Your task to perform on an android device: Go to ESPN.com Image 0: 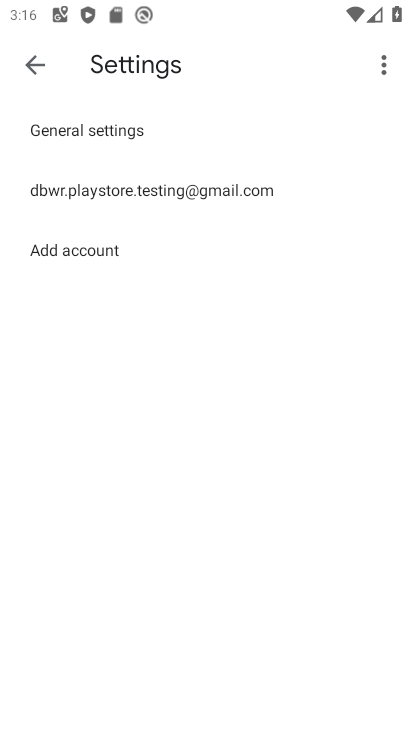
Step 0: press home button
Your task to perform on an android device: Go to ESPN.com Image 1: 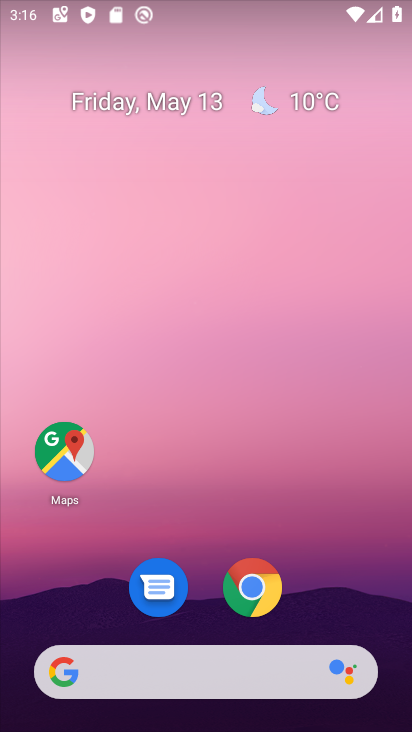
Step 1: click (255, 605)
Your task to perform on an android device: Go to ESPN.com Image 2: 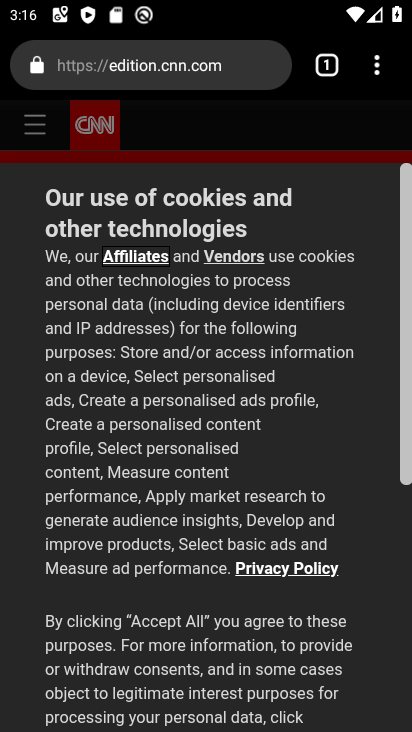
Step 2: click (145, 58)
Your task to perform on an android device: Go to ESPN.com Image 3: 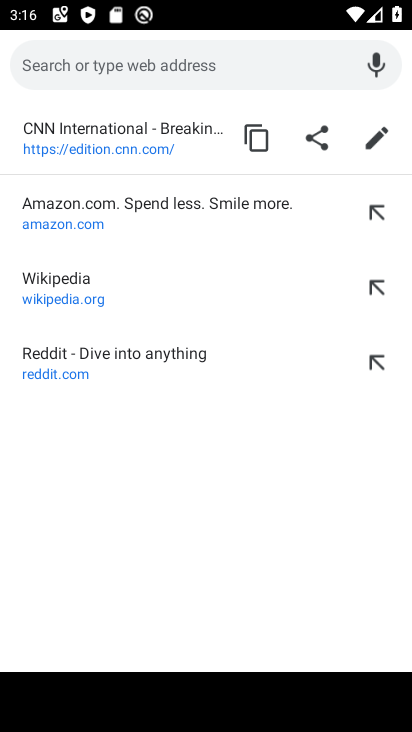
Step 3: type "ESPN.com"
Your task to perform on an android device: Go to ESPN.com Image 4: 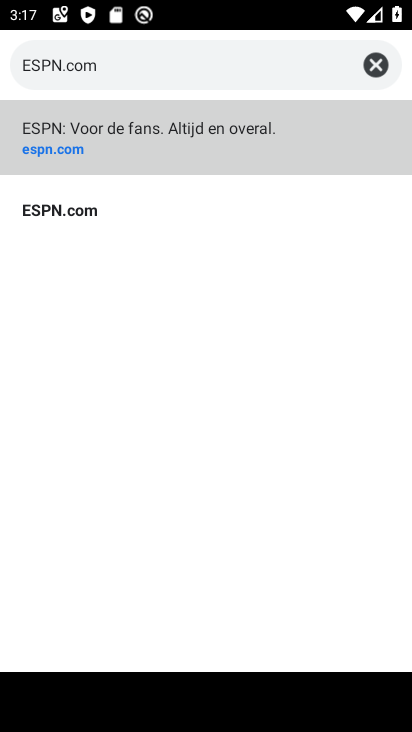
Step 4: click (25, 120)
Your task to perform on an android device: Go to ESPN.com Image 5: 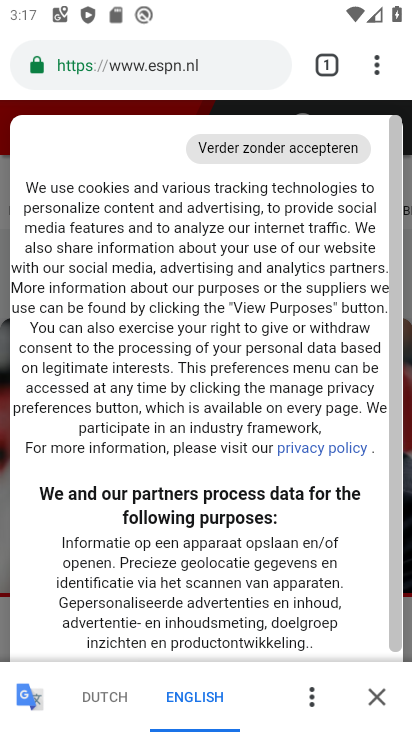
Step 5: task complete